Your task to perform on an android device: Open Google Maps Image 0: 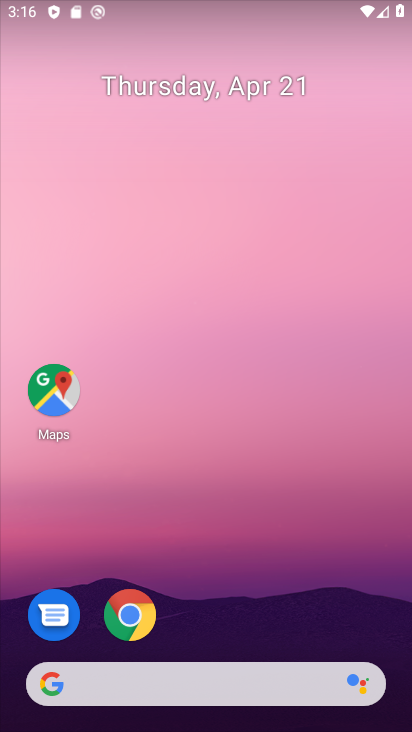
Step 0: drag from (302, 474) to (203, 28)
Your task to perform on an android device: Open Google Maps Image 1: 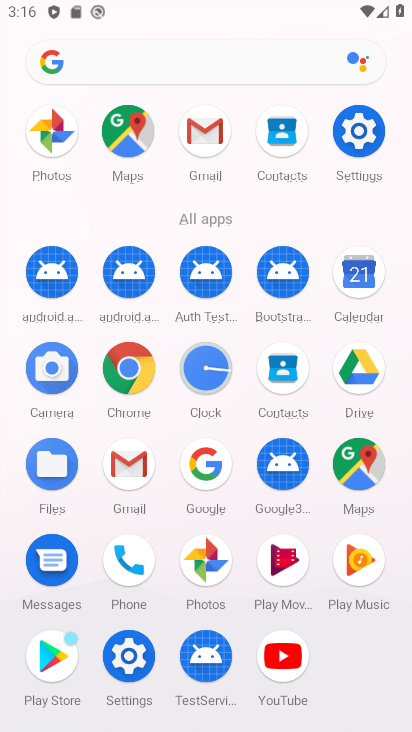
Step 1: drag from (3, 499) to (0, 215)
Your task to perform on an android device: Open Google Maps Image 2: 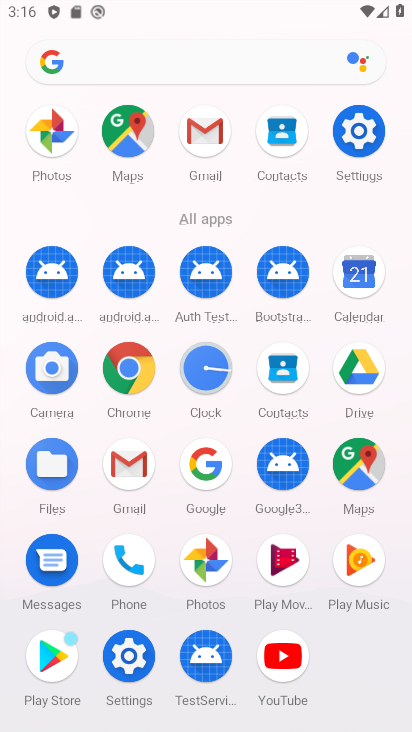
Step 2: click (352, 461)
Your task to perform on an android device: Open Google Maps Image 3: 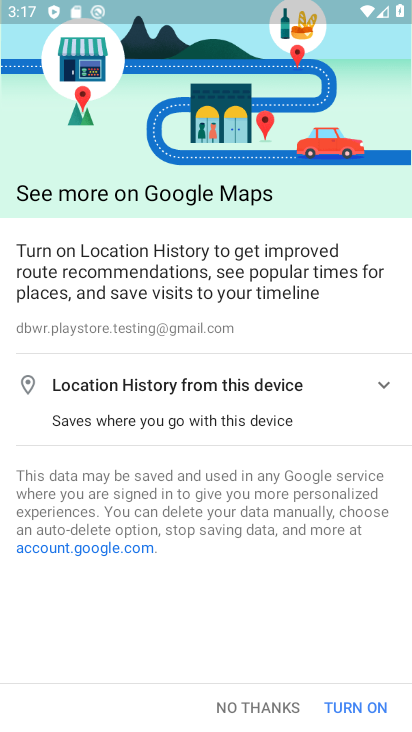
Step 3: click (343, 707)
Your task to perform on an android device: Open Google Maps Image 4: 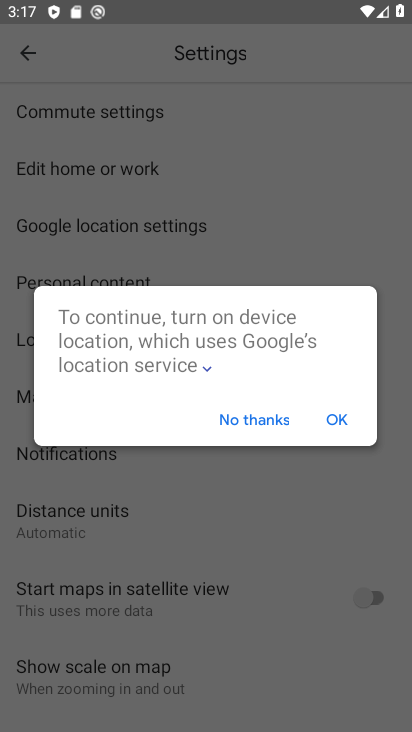
Step 4: click (325, 417)
Your task to perform on an android device: Open Google Maps Image 5: 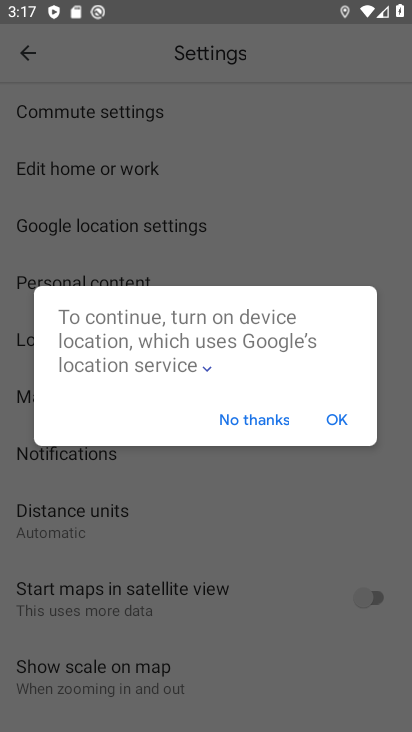
Step 5: click (337, 417)
Your task to perform on an android device: Open Google Maps Image 6: 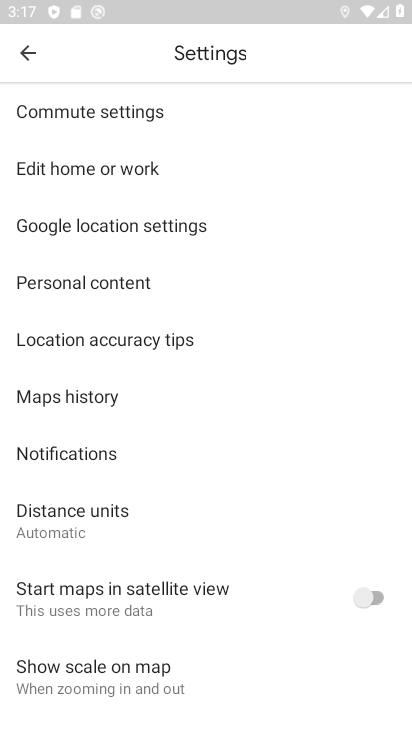
Step 6: task complete